Your task to perform on an android device: Is it going to rain tomorrow? Image 0: 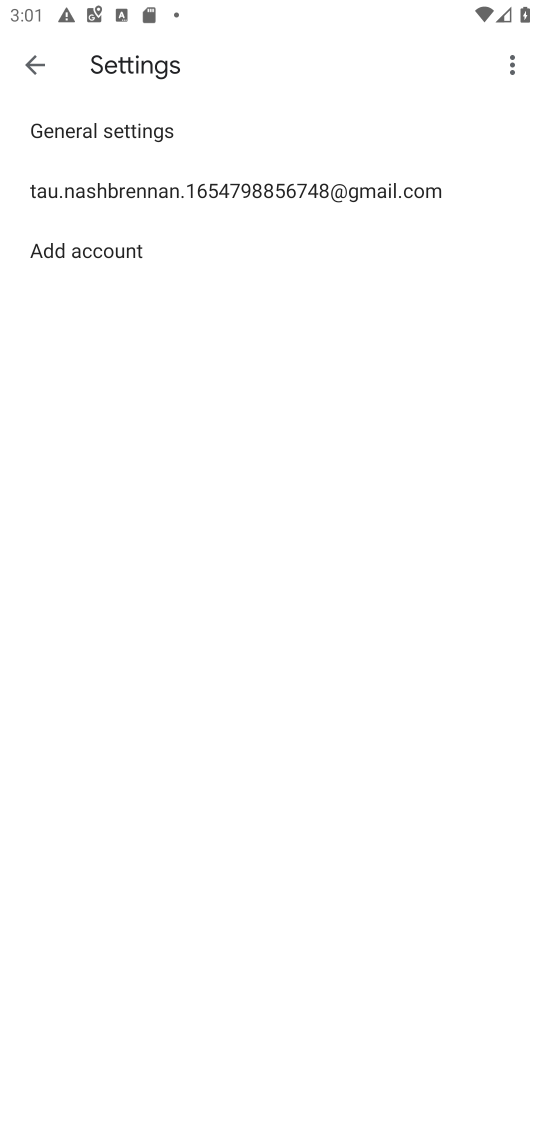
Step 0: press home button
Your task to perform on an android device: Is it going to rain tomorrow? Image 1: 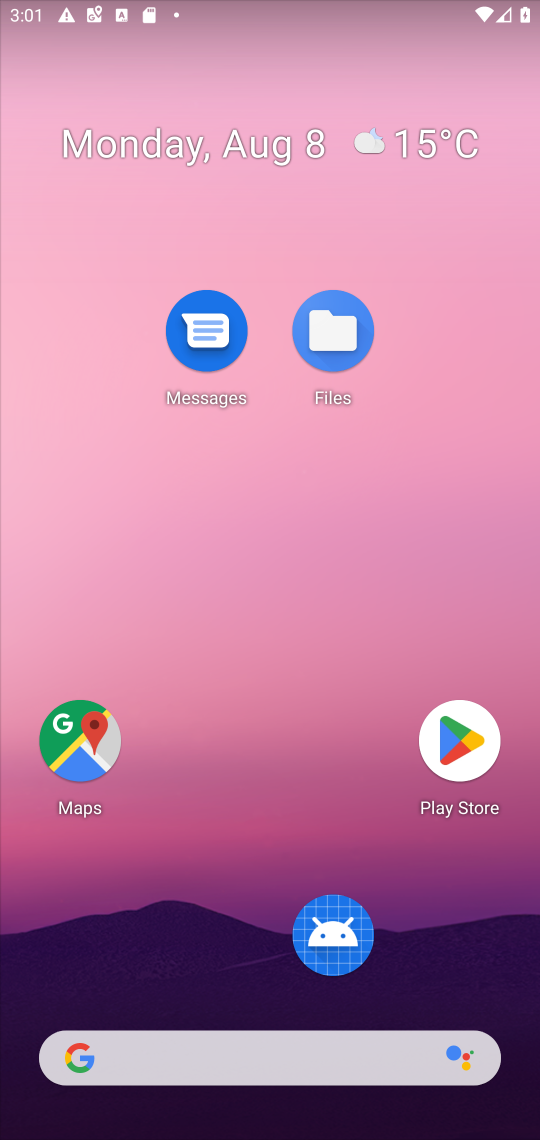
Step 1: drag from (168, 1053) to (296, 132)
Your task to perform on an android device: Is it going to rain tomorrow? Image 2: 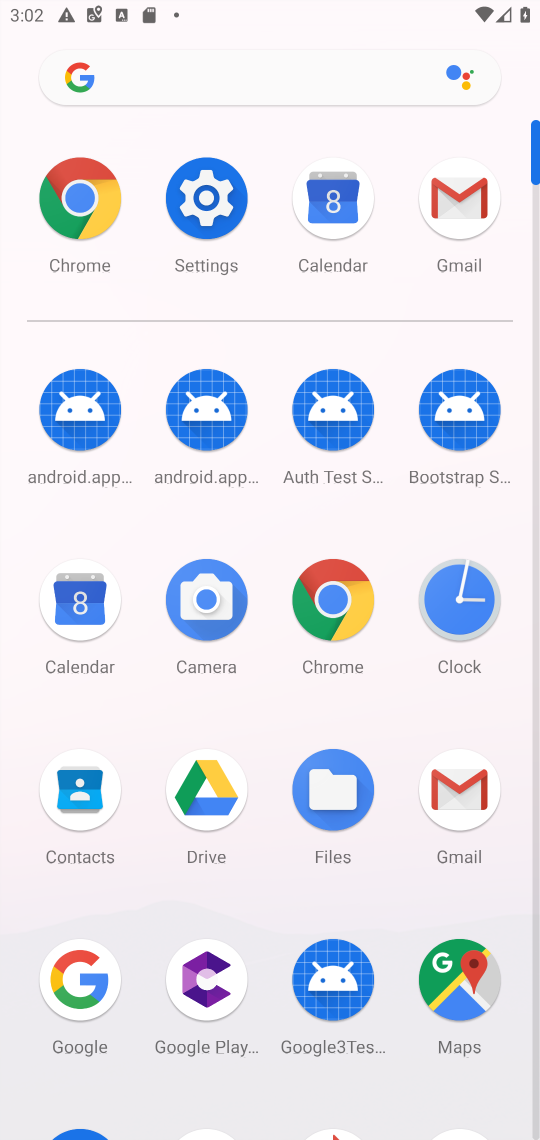
Step 2: click (344, 623)
Your task to perform on an android device: Is it going to rain tomorrow? Image 3: 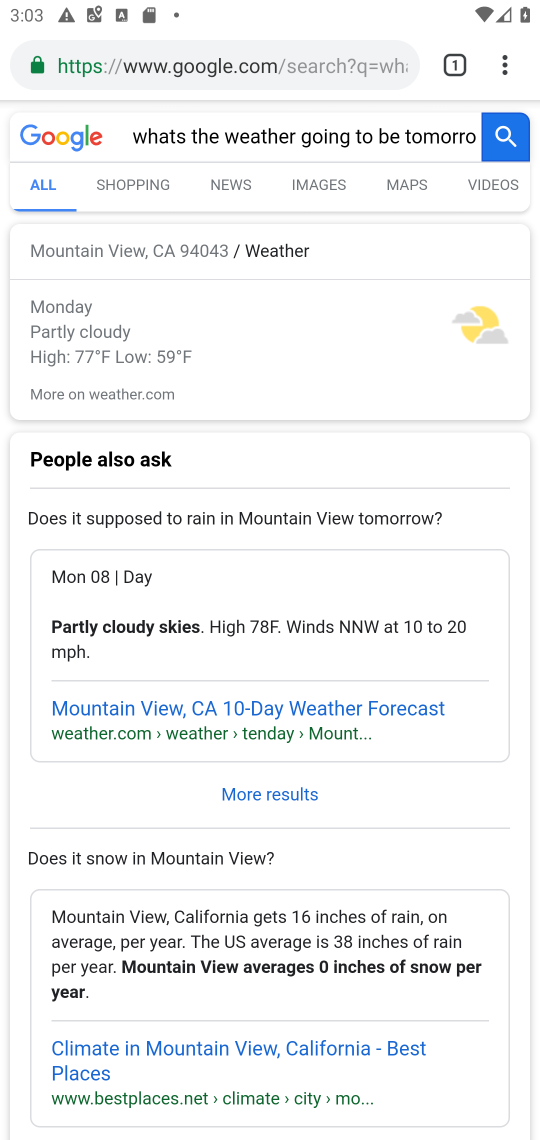
Step 3: click (205, 61)
Your task to perform on an android device: Is it going to rain tomorrow? Image 4: 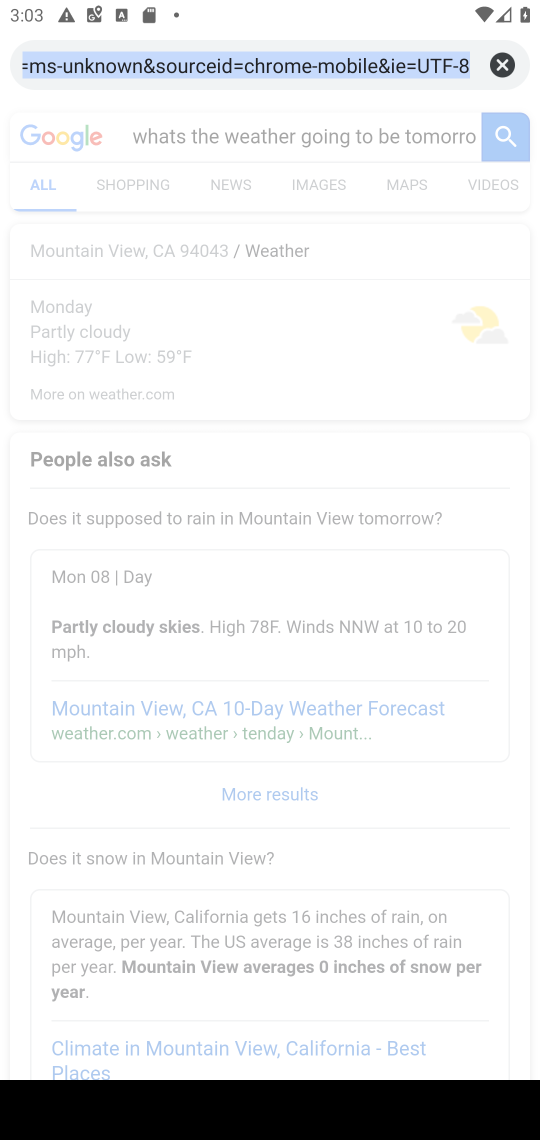
Step 4: type "is it going to rain tomorrow"
Your task to perform on an android device: Is it going to rain tomorrow? Image 5: 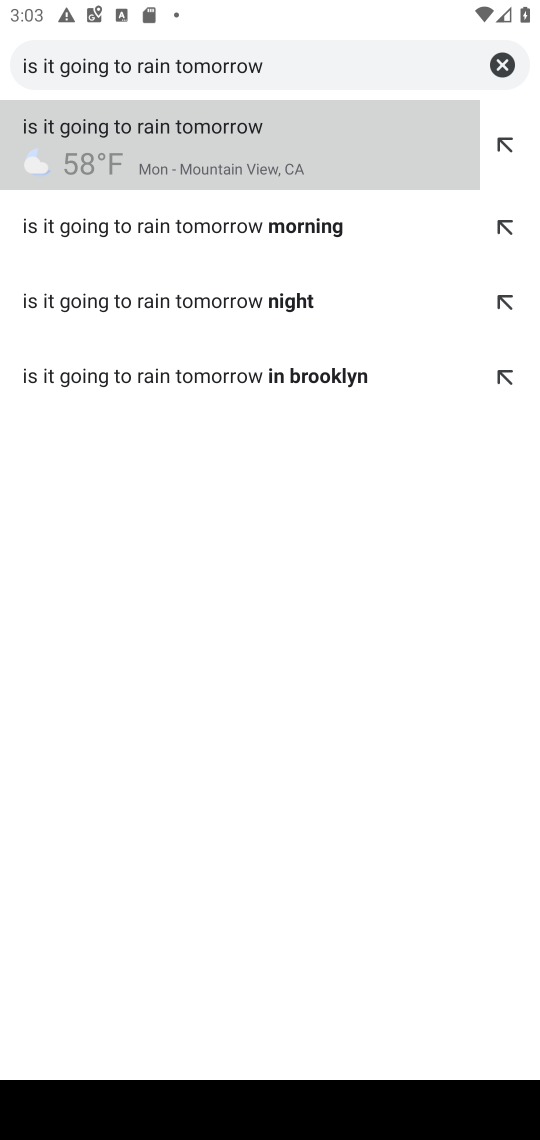
Step 5: click (395, 71)
Your task to perform on an android device: Is it going to rain tomorrow? Image 6: 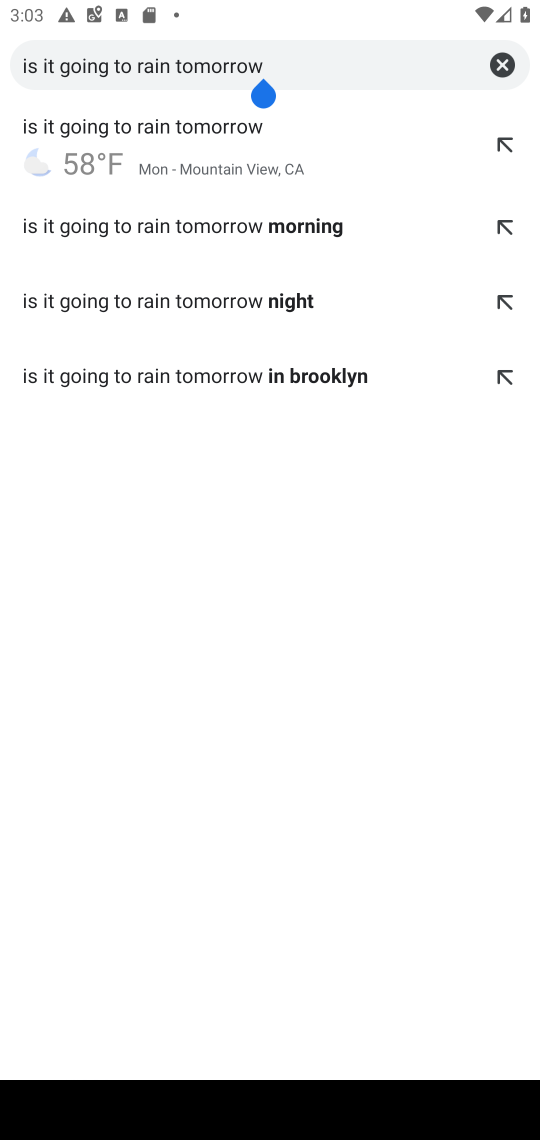
Step 6: click (355, 129)
Your task to perform on an android device: Is it going to rain tomorrow? Image 7: 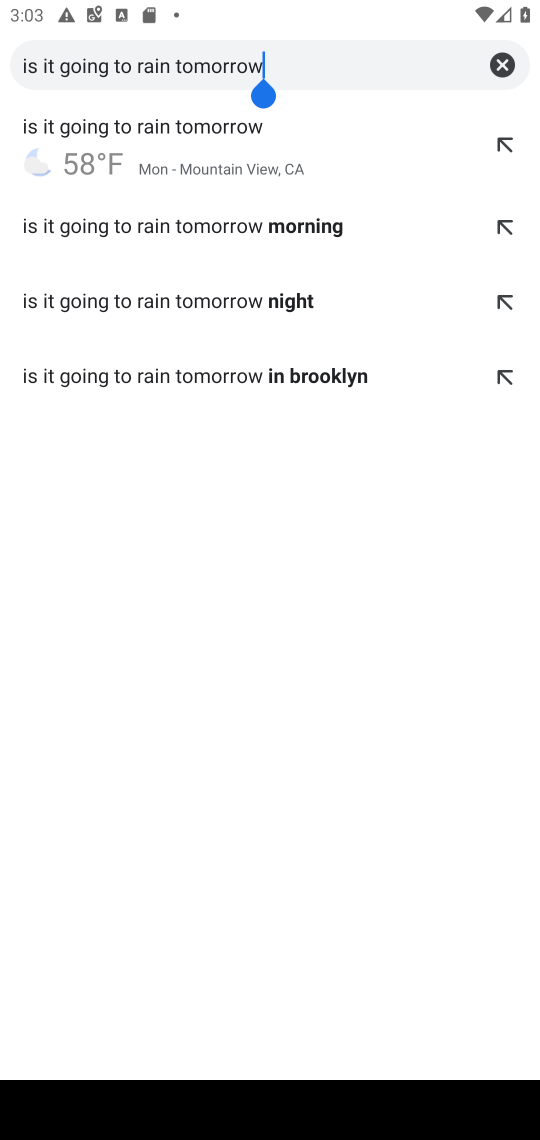
Step 7: click (355, 129)
Your task to perform on an android device: Is it going to rain tomorrow? Image 8: 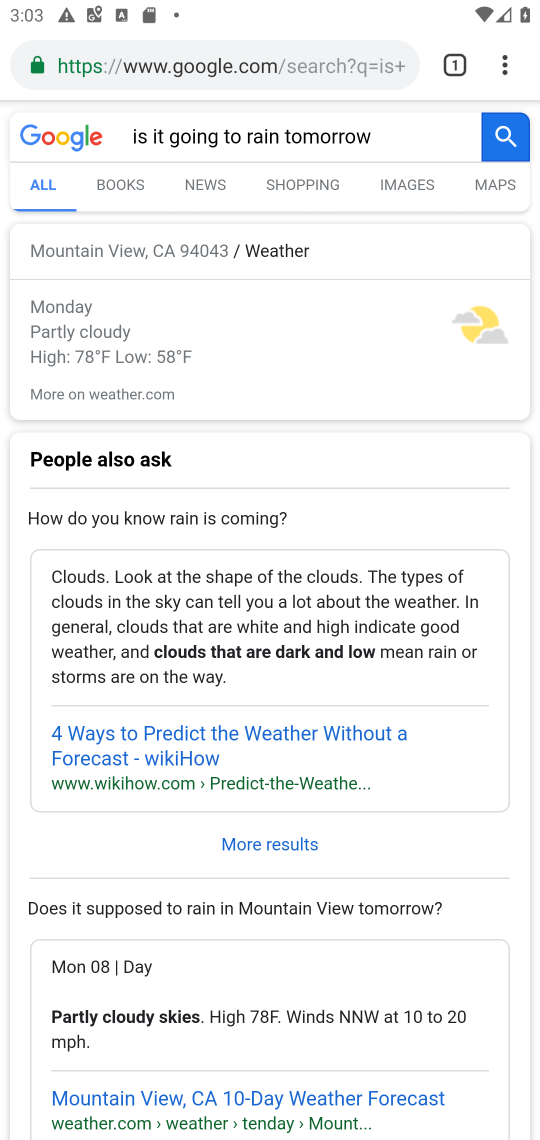
Step 8: task complete